Your task to perform on an android device: Open the calendar app, open the side menu, and click the "Day" option Image 0: 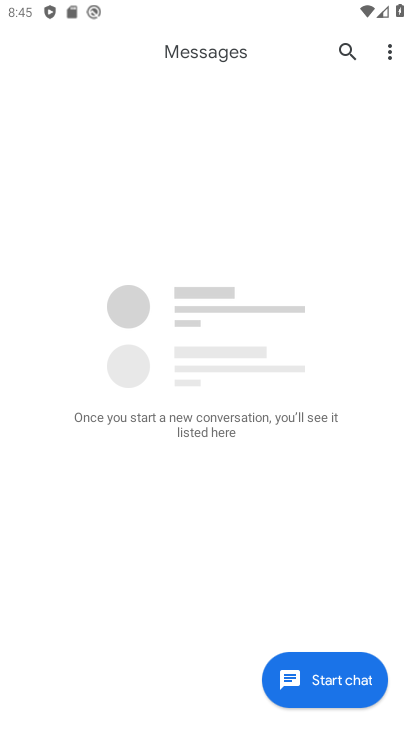
Step 0: press home button
Your task to perform on an android device: Open the calendar app, open the side menu, and click the "Day" option Image 1: 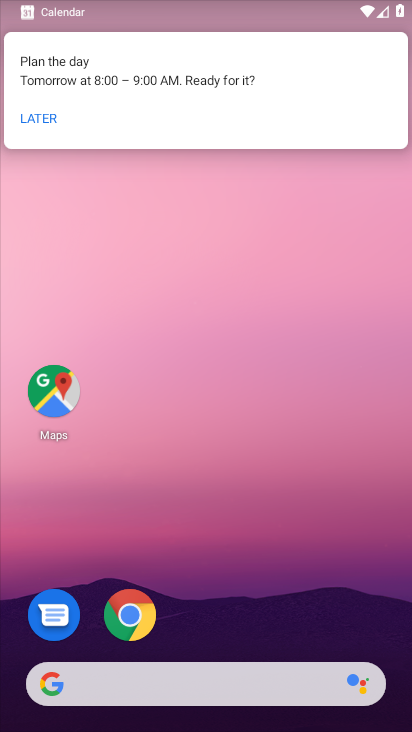
Step 1: press home button
Your task to perform on an android device: Open the calendar app, open the side menu, and click the "Day" option Image 2: 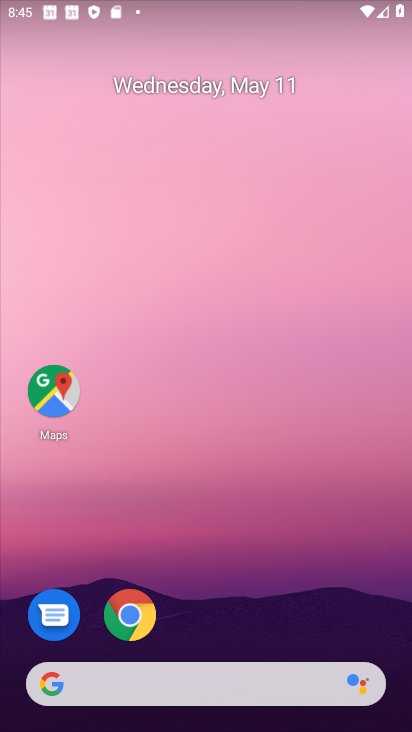
Step 2: press home button
Your task to perform on an android device: Open the calendar app, open the side menu, and click the "Day" option Image 3: 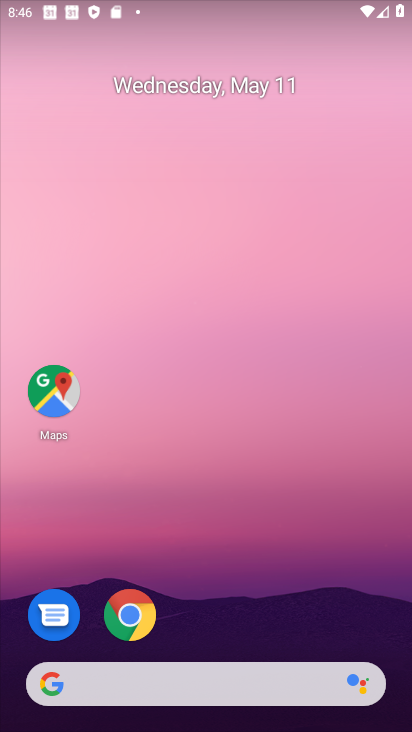
Step 3: drag from (66, 577) to (300, 106)
Your task to perform on an android device: Open the calendar app, open the side menu, and click the "Day" option Image 4: 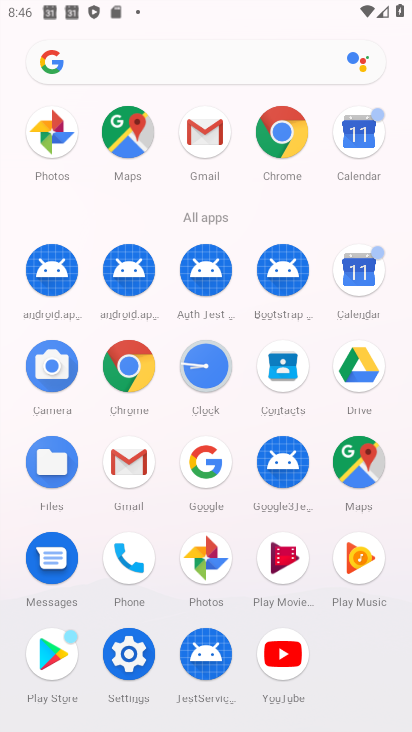
Step 4: click (366, 273)
Your task to perform on an android device: Open the calendar app, open the side menu, and click the "Day" option Image 5: 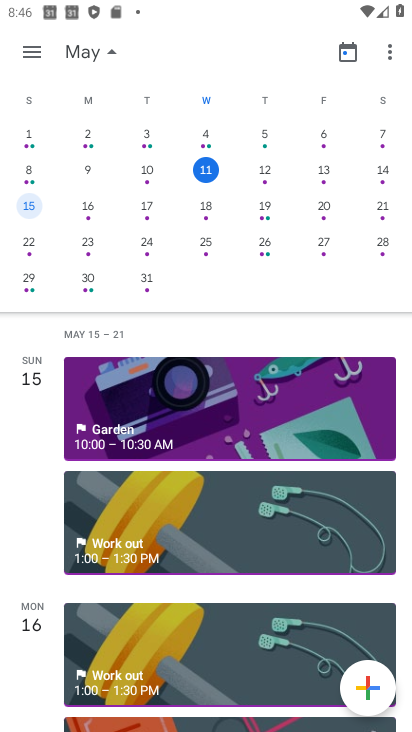
Step 5: click (24, 56)
Your task to perform on an android device: Open the calendar app, open the side menu, and click the "Day" option Image 6: 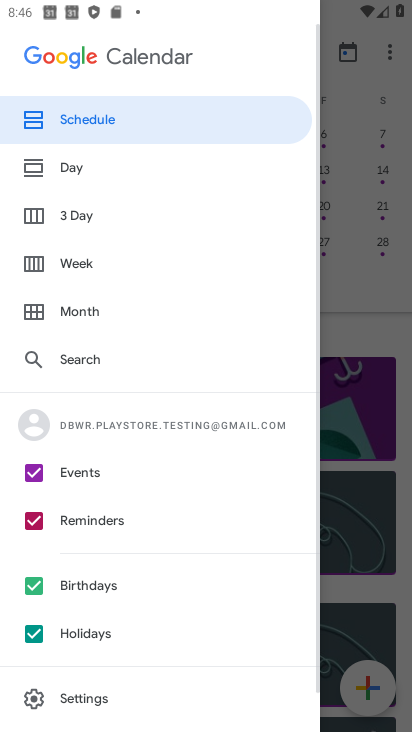
Step 6: click (75, 162)
Your task to perform on an android device: Open the calendar app, open the side menu, and click the "Day" option Image 7: 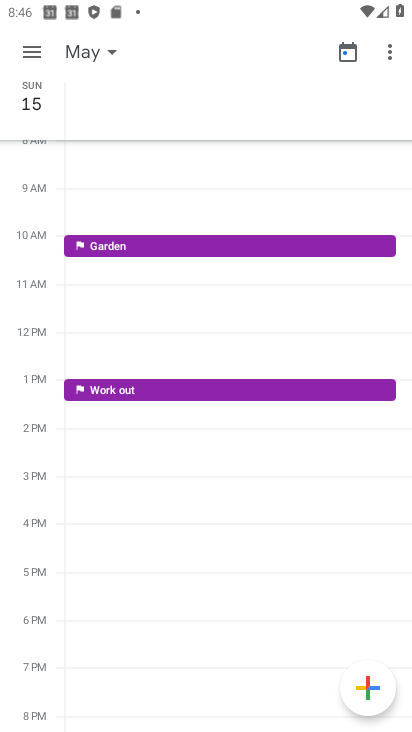
Step 7: task complete